Your task to perform on an android device: Check the news Image 0: 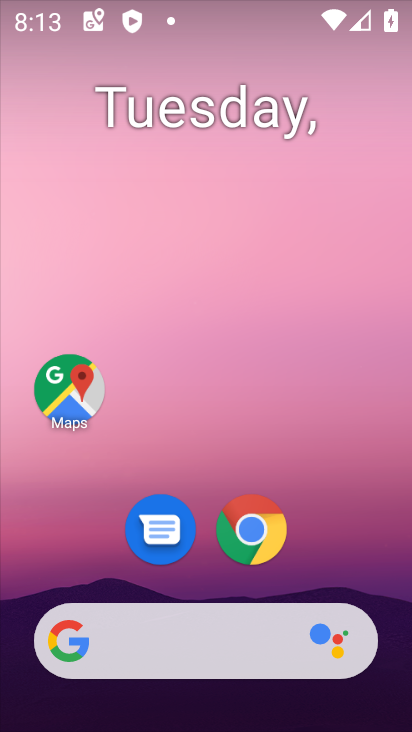
Step 0: drag from (223, 665) to (223, 225)
Your task to perform on an android device: Check the news Image 1: 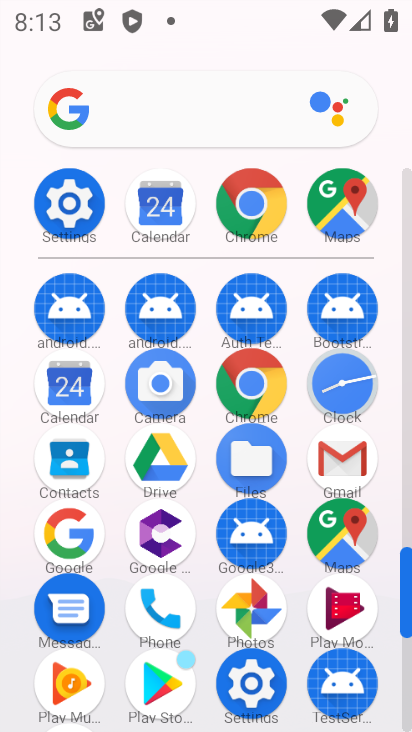
Step 1: drag from (178, 521) to (243, 290)
Your task to perform on an android device: Check the news Image 2: 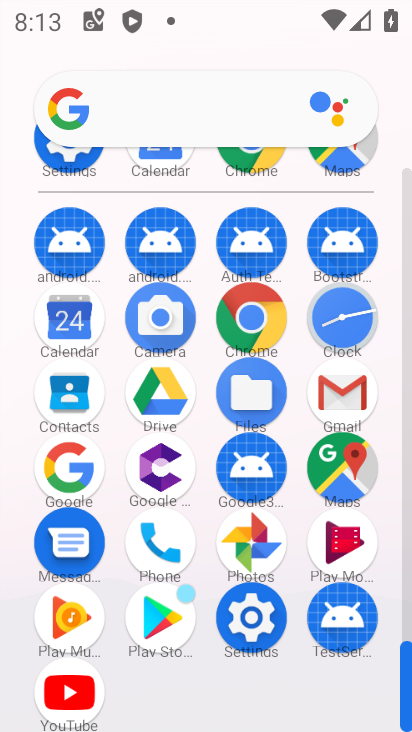
Step 2: click (77, 477)
Your task to perform on an android device: Check the news Image 3: 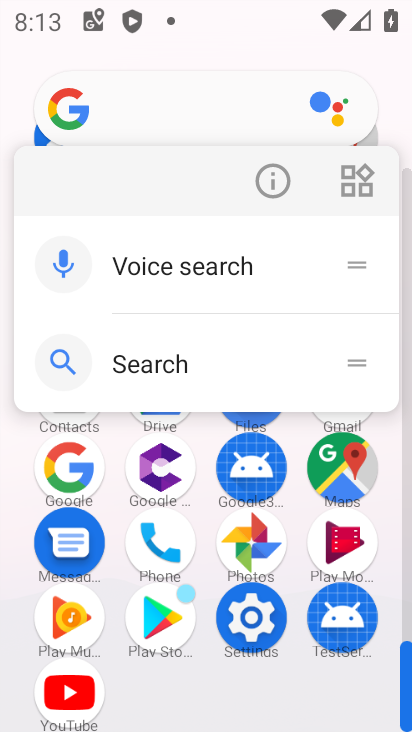
Step 3: click (86, 479)
Your task to perform on an android device: Check the news Image 4: 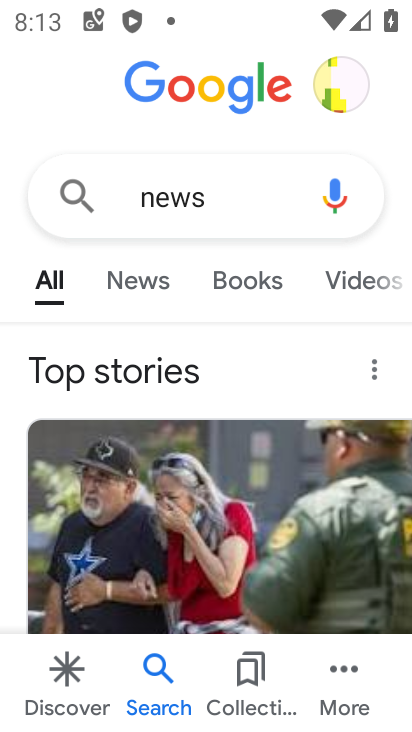
Step 4: click (144, 277)
Your task to perform on an android device: Check the news Image 5: 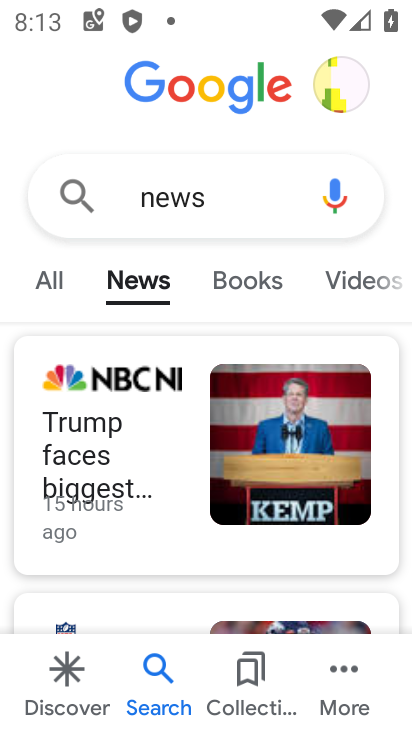
Step 5: task complete